Your task to perform on an android device: Turn on the flashlight Image 0: 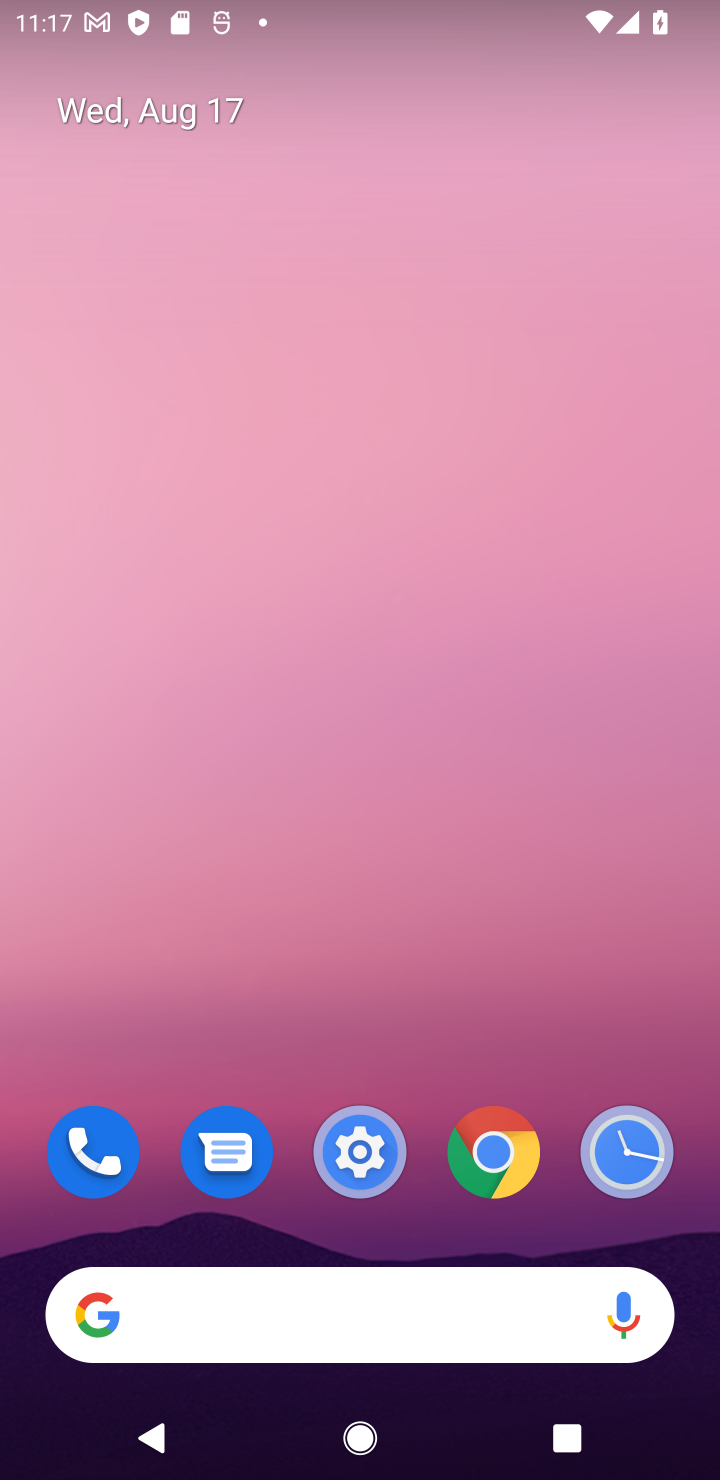
Step 0: drag from (565, 1208) to (329, 141)
Your task to perform on an android device: Turn on the flashlight Image 1: 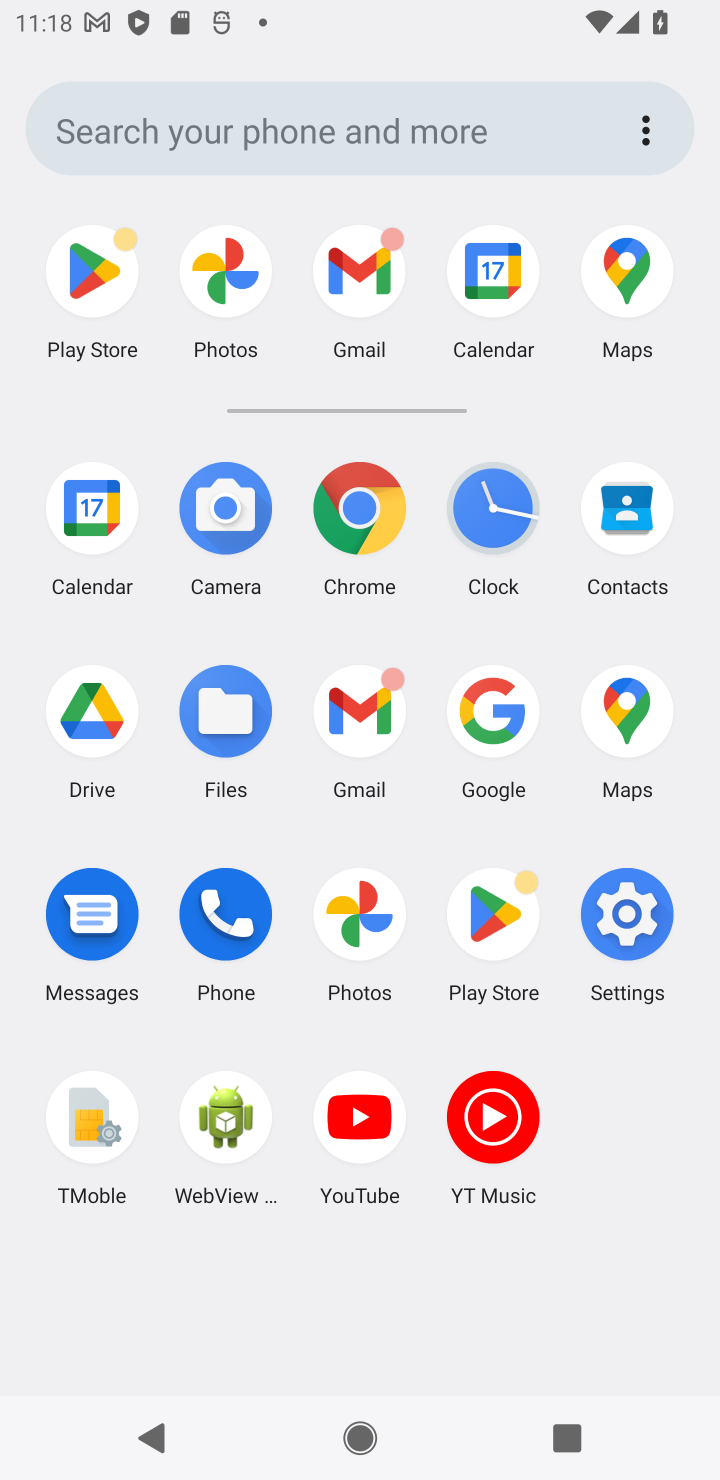
Step 1: click (642, 939)
Your task to perform on an android device: Turn on the flashlight Image 2: 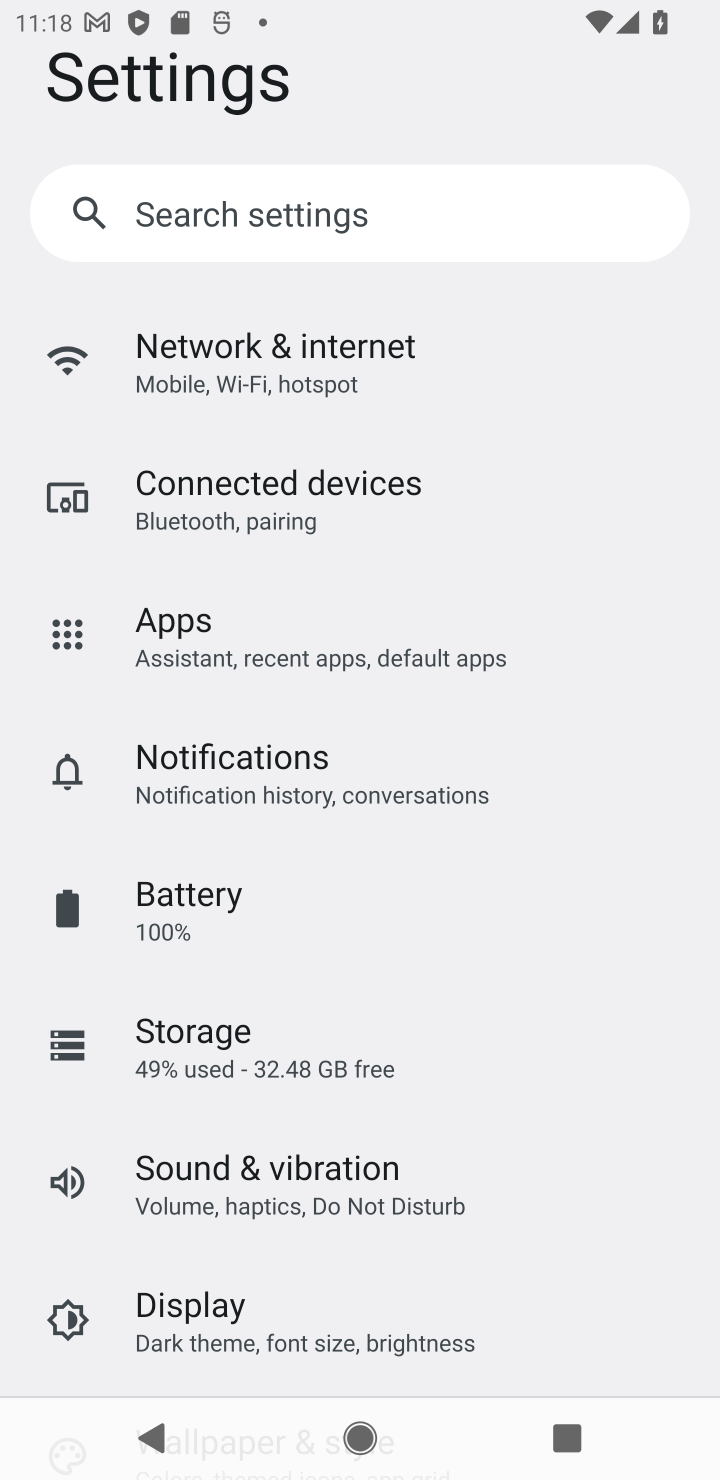
Step 2: task complete